Your task to perform on an android device: open app "PlayWell" (install if not already installed), go to login, and select forgot password Image 0: 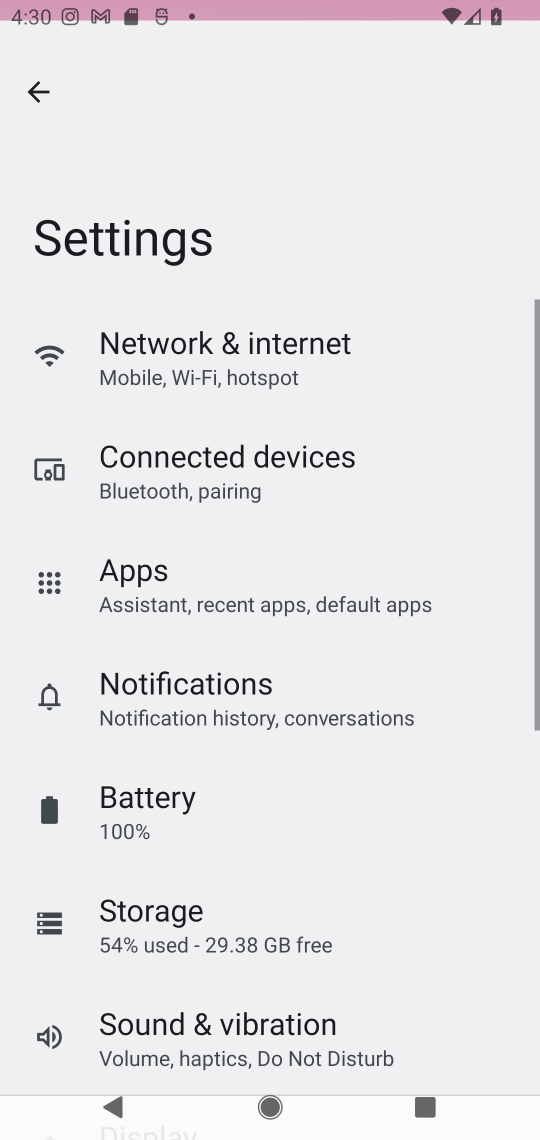
Step 0: press home button
Your task to perform on an android device: open app "PlayWell" (install if not already installed), go to login, and select forgot password Image 1: 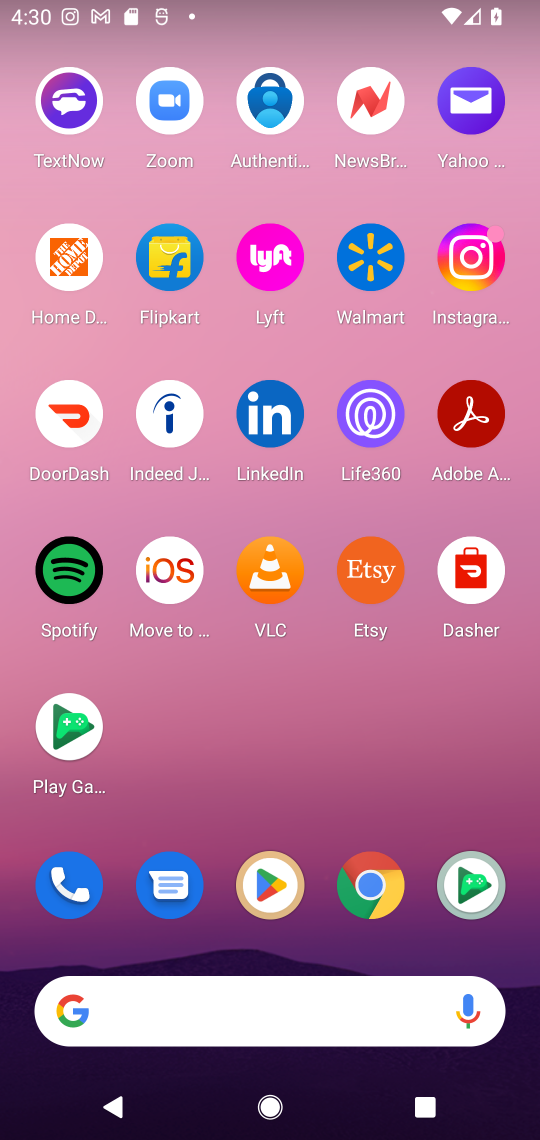
Step 1: click (263, 876)
Your task to perform on an android device: open app "PlayWell" (install if not already installed), go to login, and select forgot password Image 2: 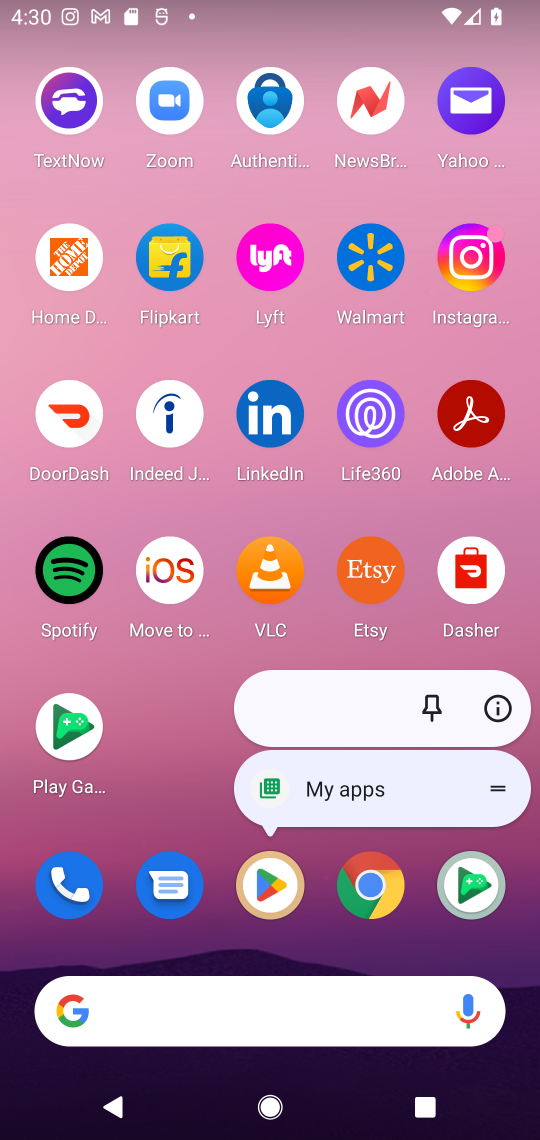
Step 2: click (265, 879)
Your task to perform on an android device: open app "PlayWell" (install if not already installed), go to login, and select forgot password Image 3: 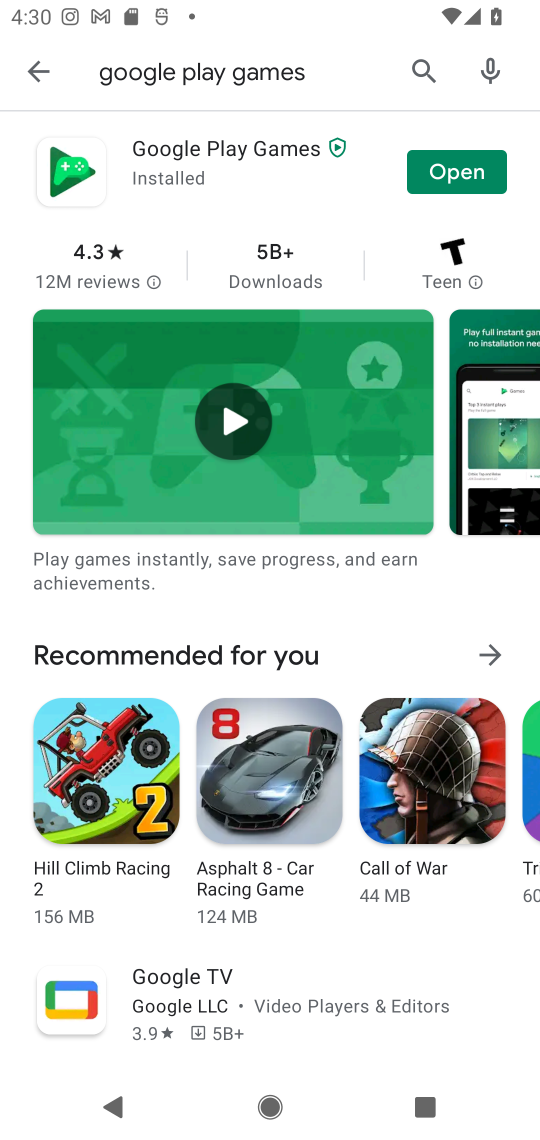
Step 3: click (423, 73)
Your task to perform on an android device: open app "PlayWell" (install if not already installed), go to login, and select forgot password Image 4: 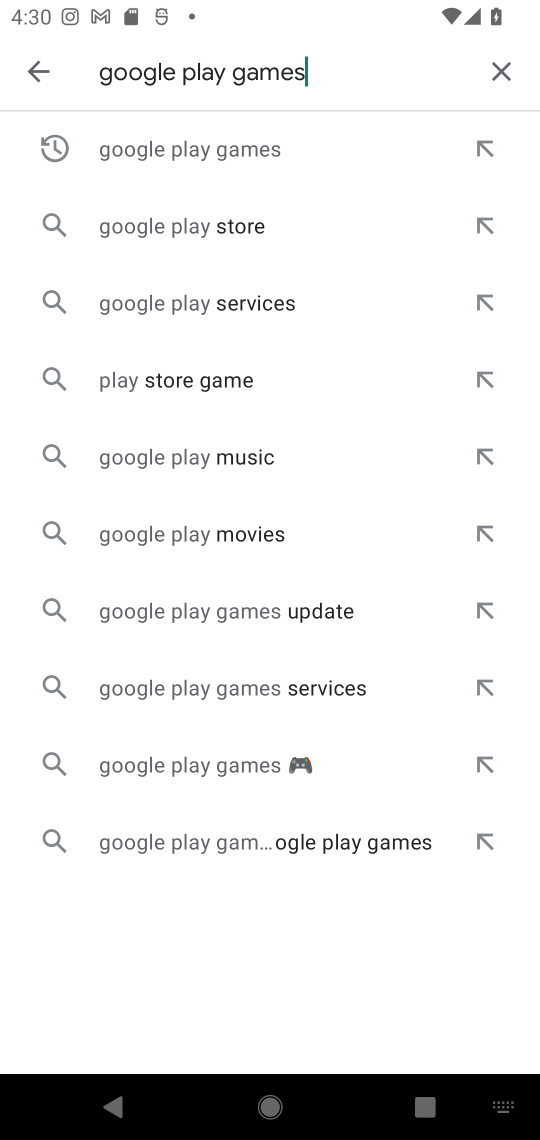
Step 4: click (502, 68)
Your task to perform on an android device: open app "PlayWell" (install if not already installed), go to login, and select forgot password Image 5: 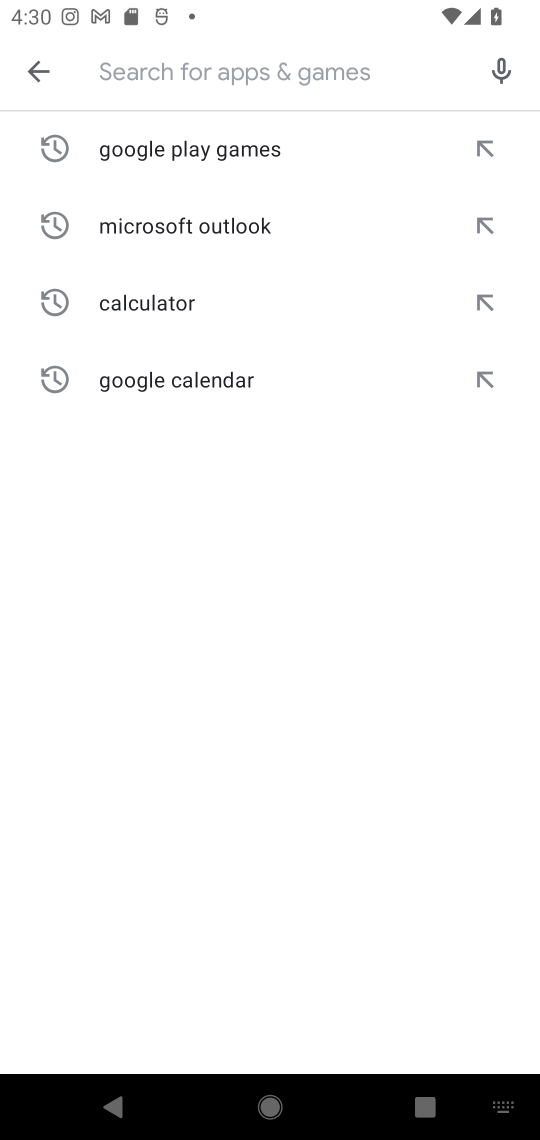
Step 5: type "PlayWell"
Your task to perform on an android device: open app "PlayWell" (install if not already installed), go to login, and select forgot password Image 6: 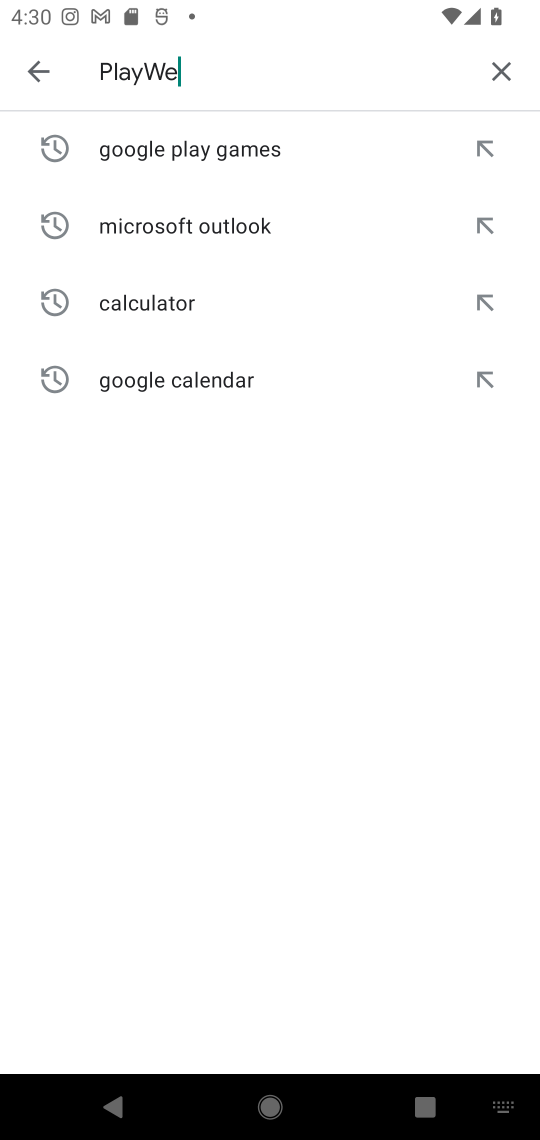
Step 6: type ""
Your task to perform on an android device: open app "PlayWell" (install if not already installed), go to login, and select forgot password Image 7: 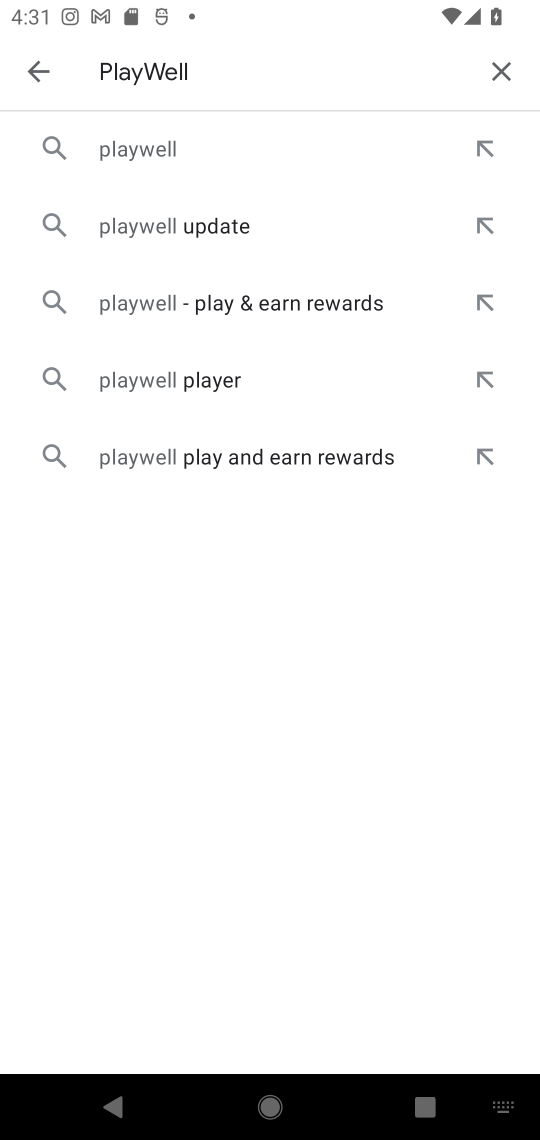
Step 7: click (190, 145)
Your task to perform on an android device: open app "PlayWell" (install if not already installed), go to login, and select forgot password Image 8: 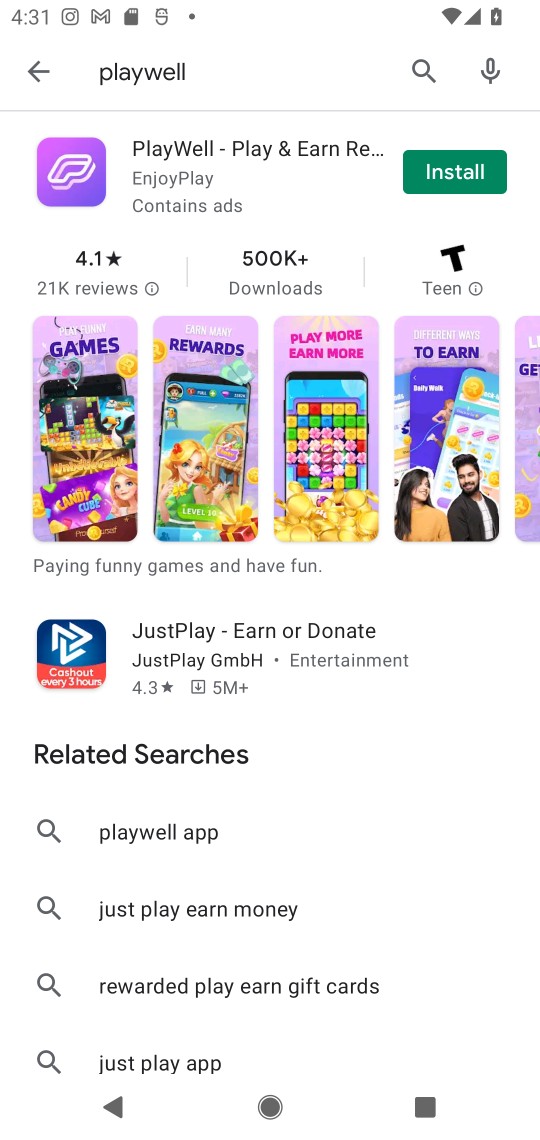
Step 8: click (460, 170)
Your task to perform on an android device: open app "PlayWell" (install if not already installed), go to login, and select forgot password Image 9: 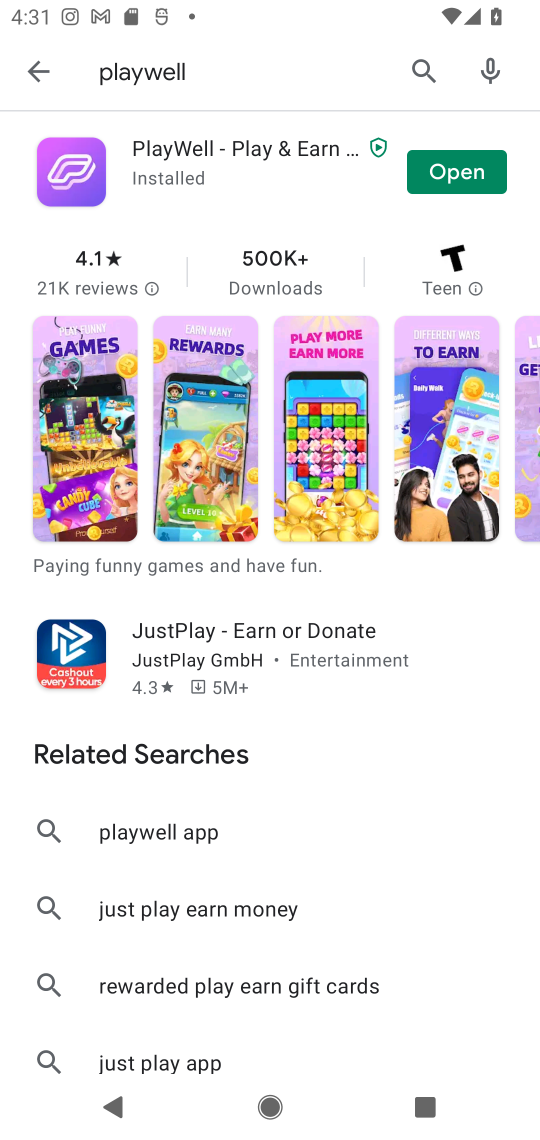
Step 9: click (463, 170)
Your task to perform on an android device: open app "PlayWell" (install if not already installed), go to login, and select forgot password Image 10: 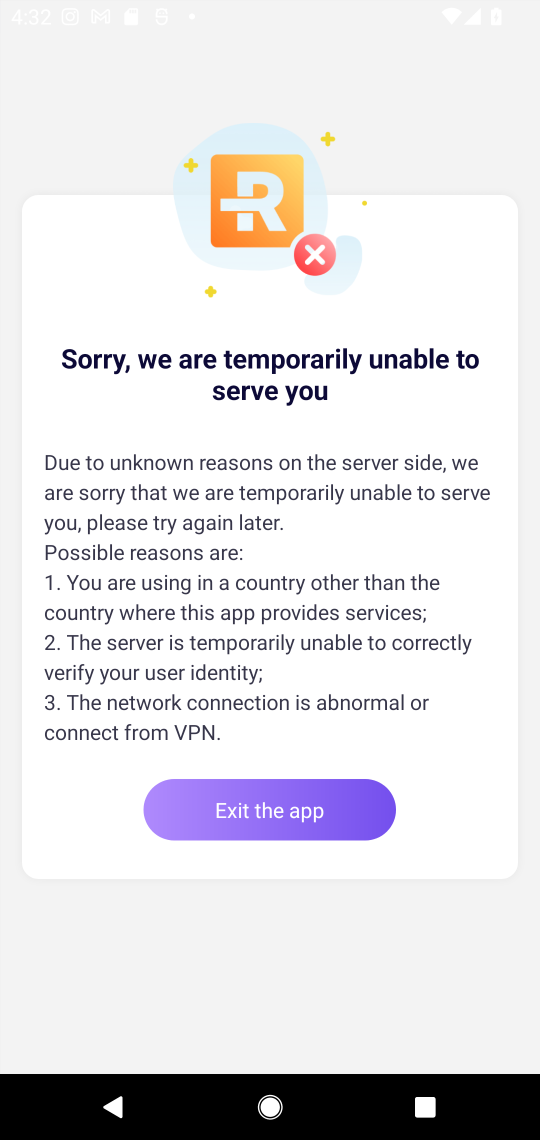
Step 10: click (288, 814)
Your task to perform on an android device: open app "PlayWell" (install if not already installed), go to login, and select forgot password Image 11: 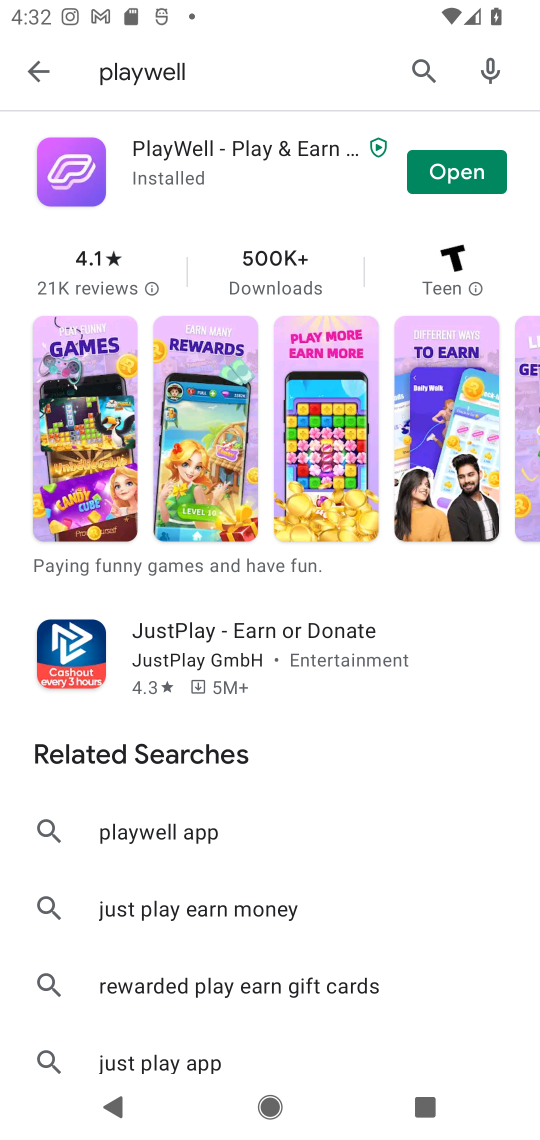
Step 11: task complete